Your task to perform on an android device: Open my contact list Image 0: 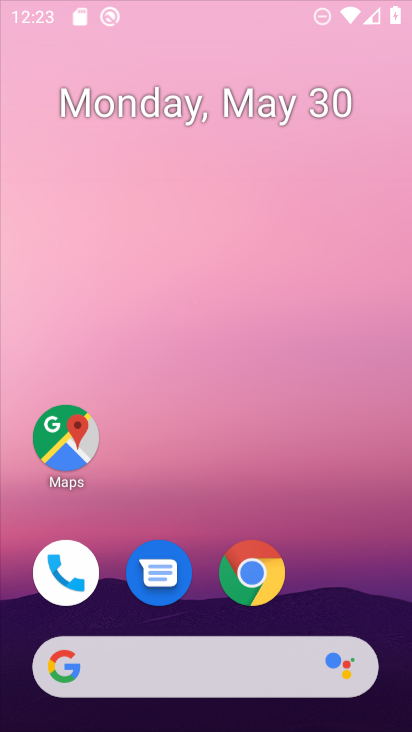
Step 0: press home button
Your task to perform on an android device: Open my contact list Image 1: 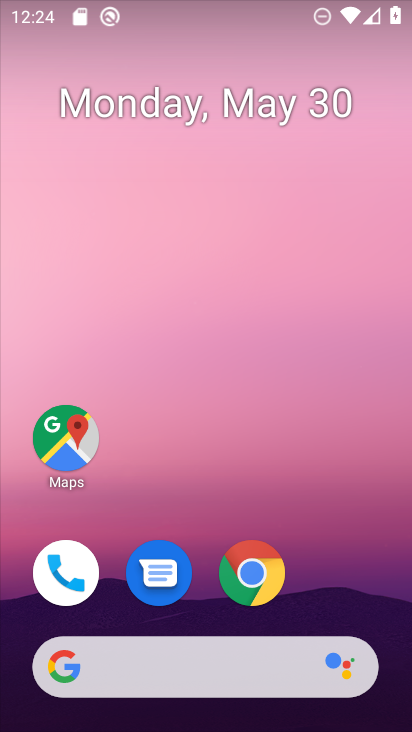
Step 1: drag from (322, 517) to (284, 103)
Your task to perform on an android device: Open my contact list Image 2: 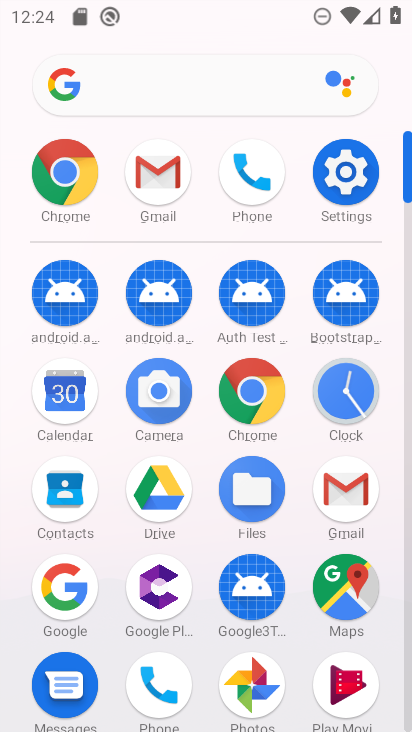
Step 2: click (59, 484)
Your task to perform on an android device: Open my contact list Image 3: 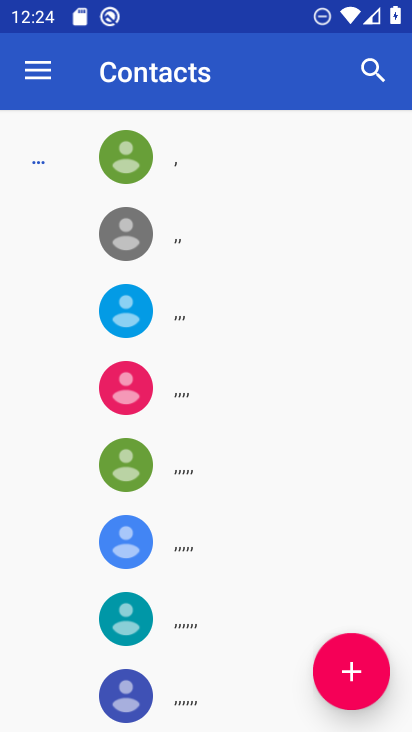
Step 3: task complete